Your task to perform on an android device: set default search engine in the chrome app Image 0: 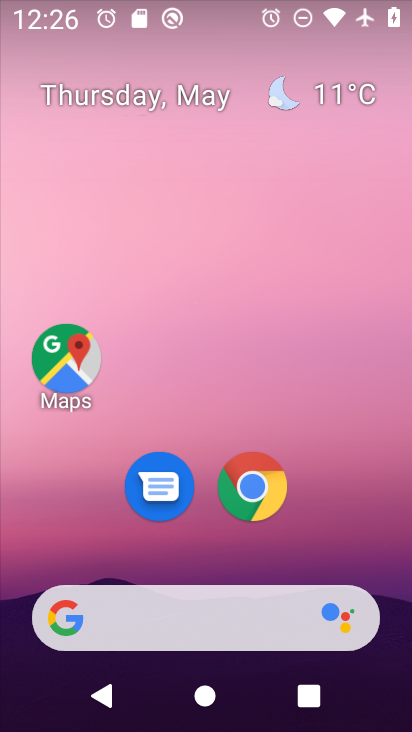
Step 0: drag from (362, 513) to (245, 29)
Your task to perform on an android device: set default search engine in the chrome app Image 1: 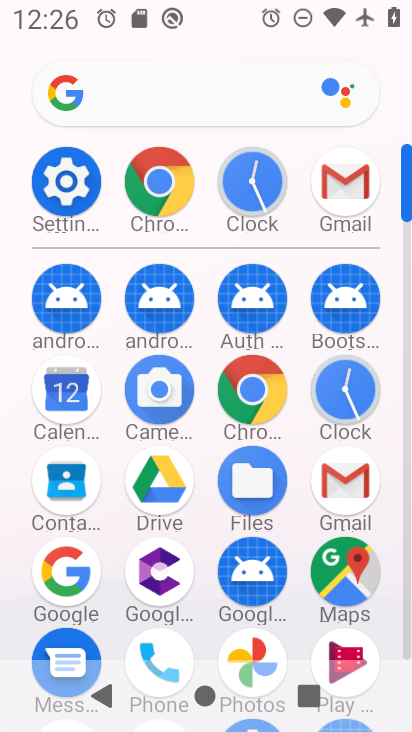
Step 1: drag from (10, 568) to (5, 331)
Your task to perform on an android device: set default search engine in the chrome app Image 2: 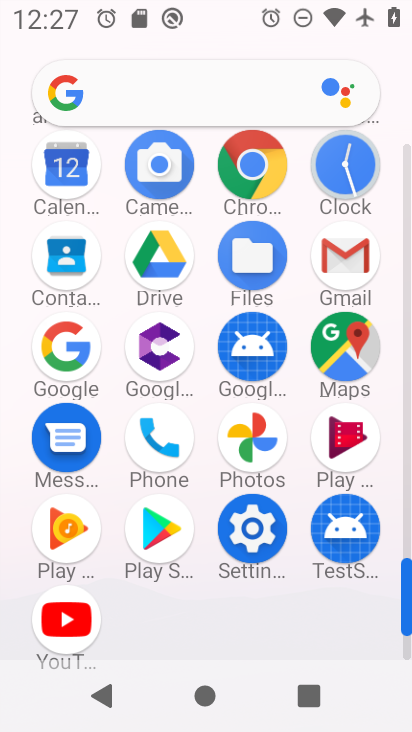
Step 2: click (253, 158)
Your task to perform on an android device: set default search engine in the chrome app Image 3: 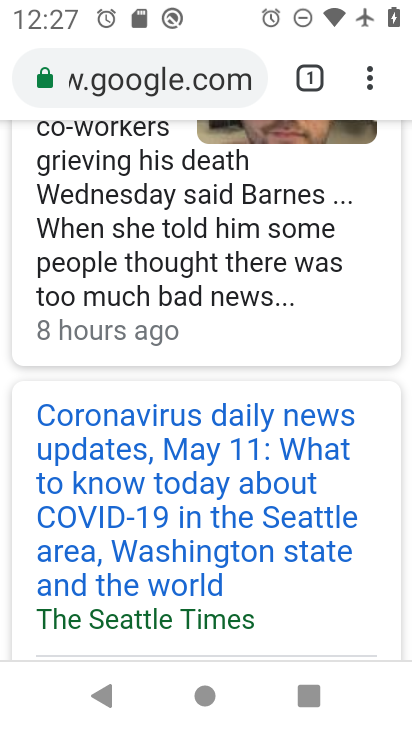
Step 3: drag from (367, 73) to (111, 550)
Your task to perform on an android device: set default search engine in the chrome app Image 4: 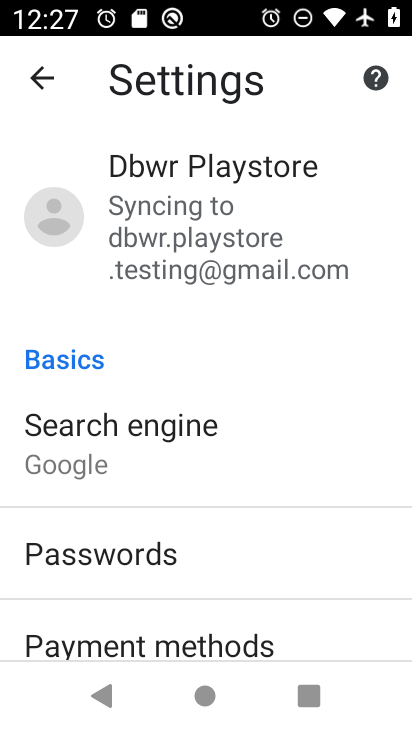
Step 4: click (156, 446)
Your task to perform on an android device: set default search engine in the chrome app Image 5: 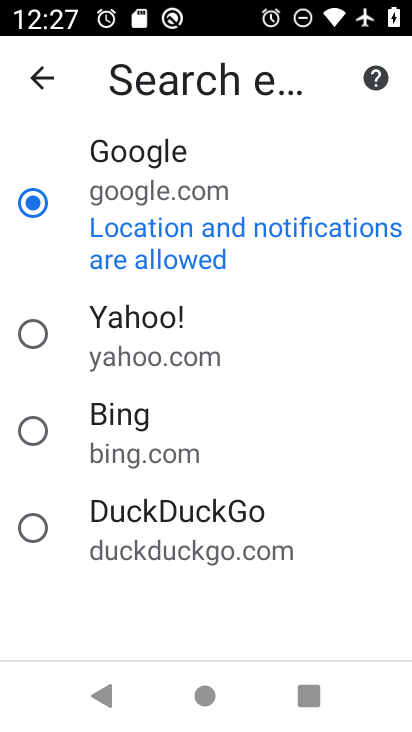
Step 5: click (174, 346)
Your task to perform on an android device: set default search engine in the chrome app Image 6: 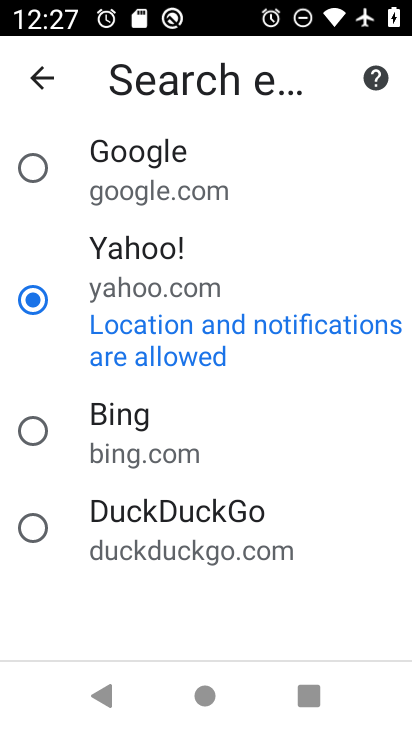
Step 6: task complete